Your task to perform on an android device: Go to Google maps Image 0: 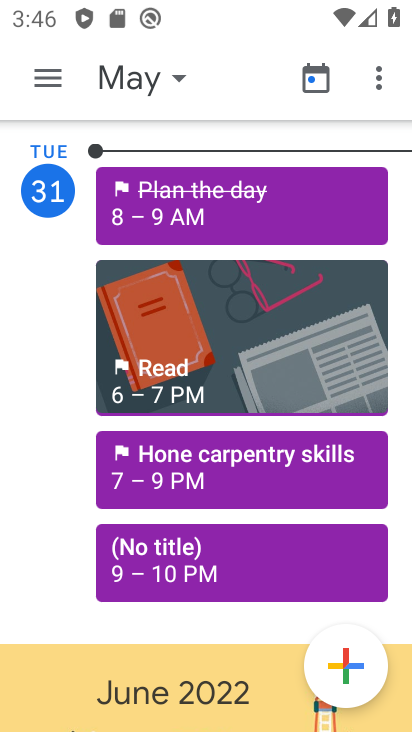
Step 0: press home button
Your task to perform on an android device: Go to Google maps Image 1: 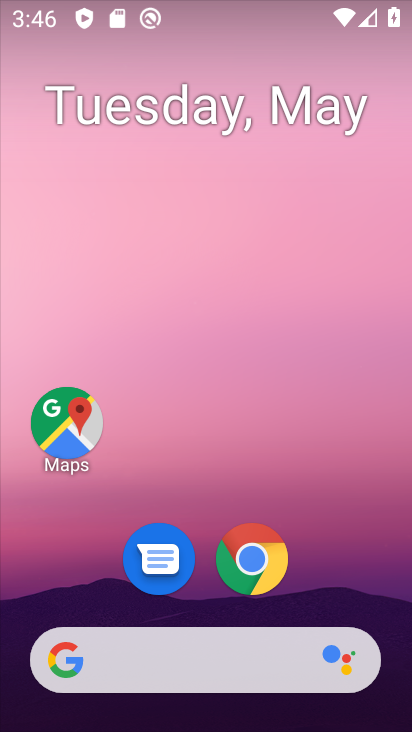
Step 1: click (63, 412)
Your task to perform on an android device: Go to Google maps Image 2: 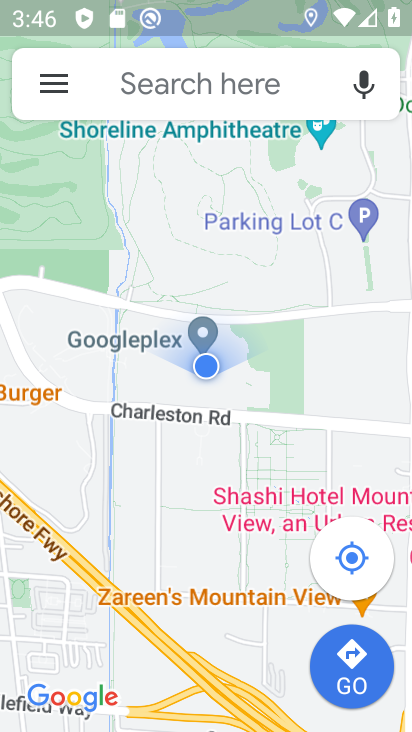
Step 2: task complete